Your task to perform on an android device: Go to notification settings Image 0: 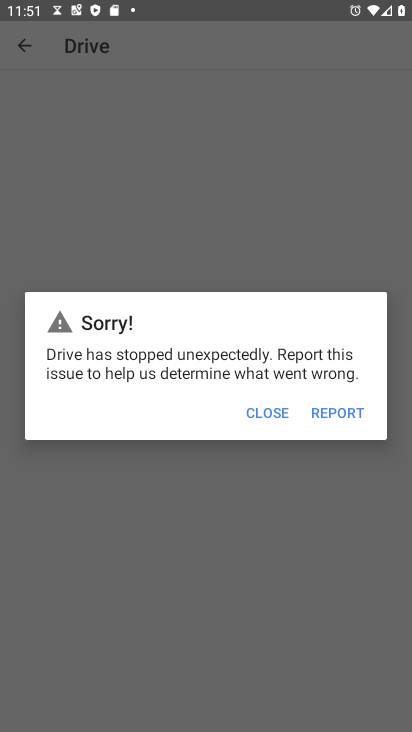
Step 0: press home button
Your task to perform on an android device: Go to notification settings Image 1: 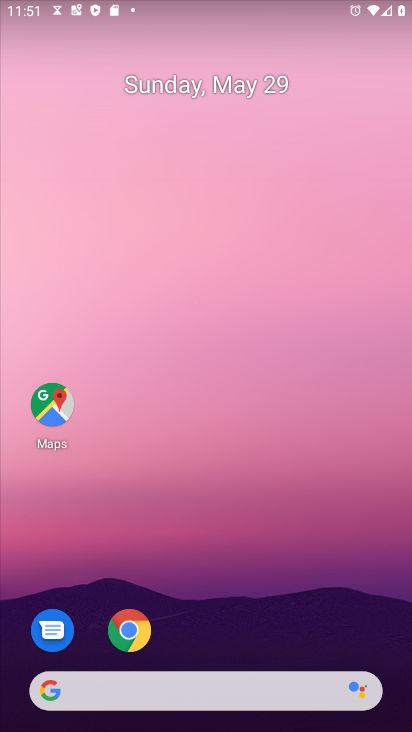
Step 1: drag from (226, 578) to (231, 28)
Your task to perform on an android device: Go to notification settings Image 2: 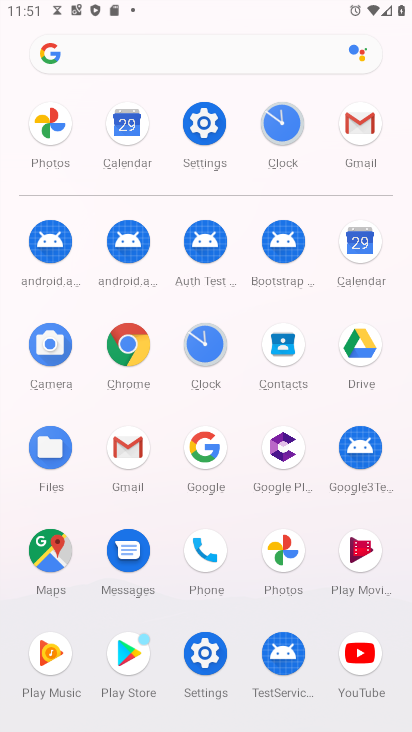
Step 2: click (201, 122)
Your task to perform on an android device: Go to notification settings Image 3: 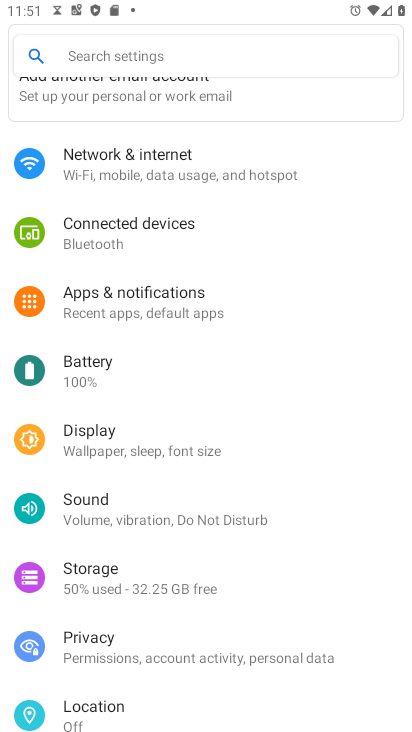
Step 3: click (110, 287)
Your task to perform on an android device: Go to notification settings Image 4: 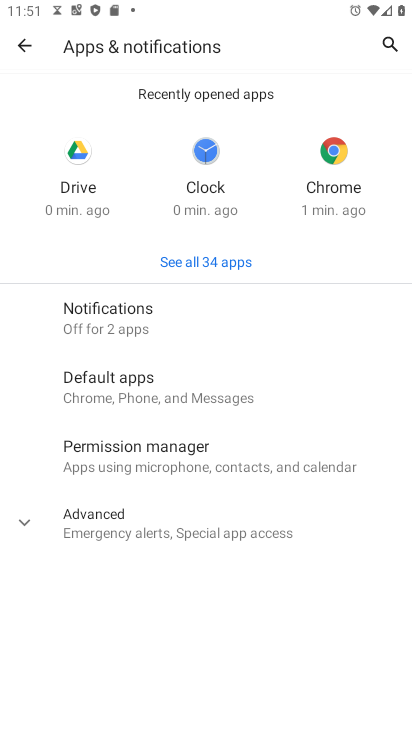
Step 4: click (167, 292)
Your task to perform on an android device: Go to notification settings Image 5: 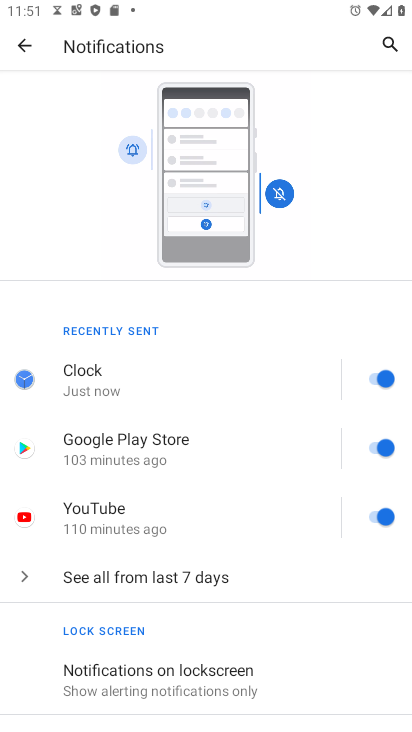
Step 5: task complete